Your task to perform on an android device: toggle data saver in the chrome app Image 0: 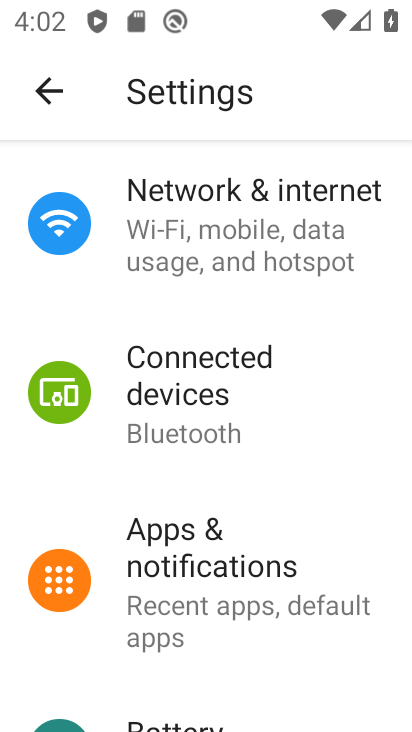
Step 0: press back button
Your task to perform on an android device: toggle data saver in the chrome app Image 1: 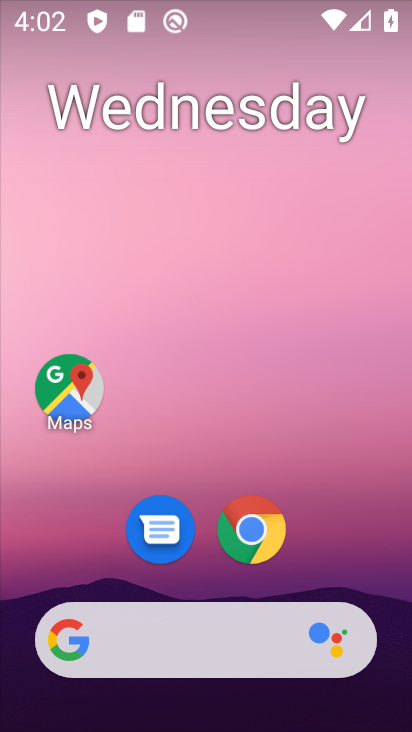
Step 1: click (250, 518)
Your task to perform on an android device: toggle data saver in the chrome app Image 2: 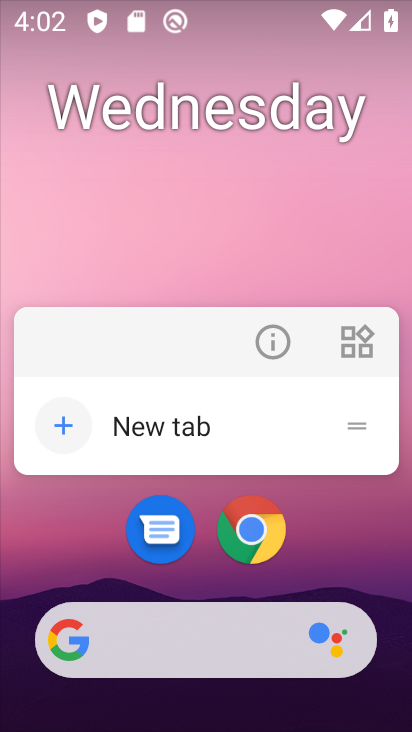
Step 2: click (249, 523)
Your task to perform on an android device: toggle data saver in the chrome app Image 3: 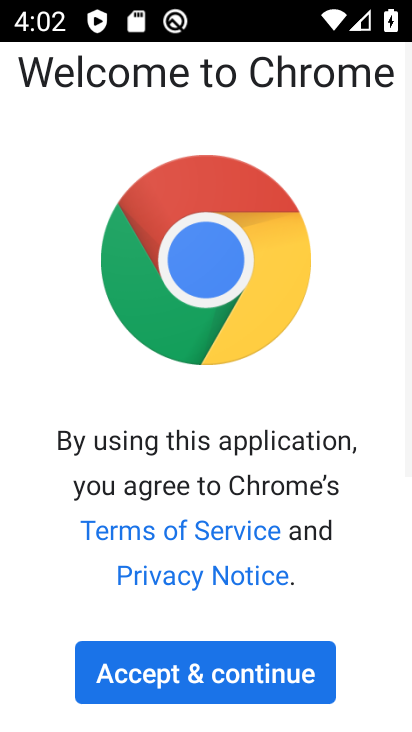
Step 3: click (172, 656)
Your task to perform on an android device: toggle data saver in the chrome app Image 4: 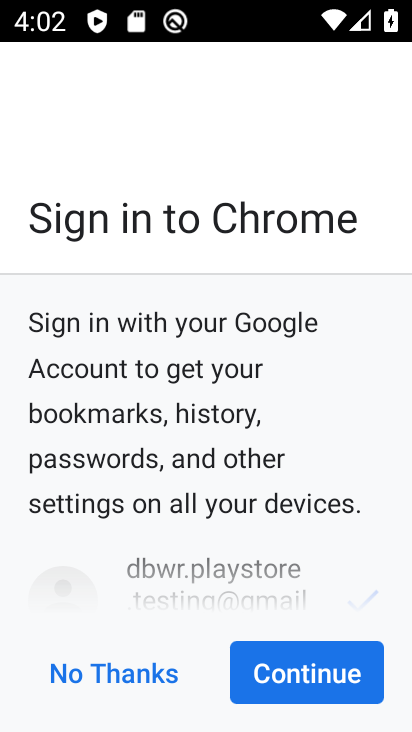
Step 4: click (312, 673)
Your task to perform on an android device: toggle data saver in the chrome app Image 5: 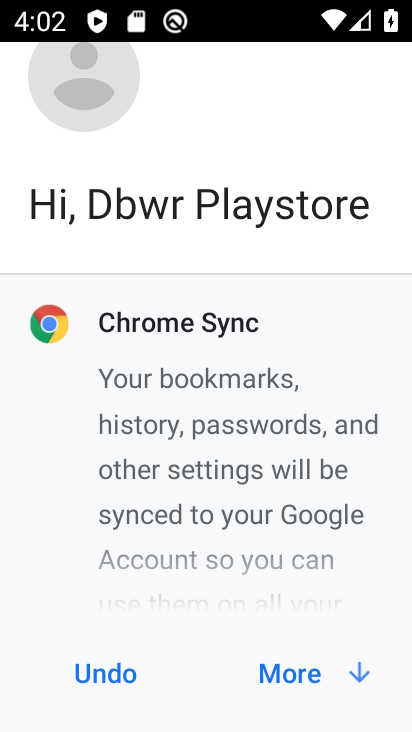
Step 5: click (295, 686)
Your task to perform on an android device: toggle data saver in the chrome app Image 6: 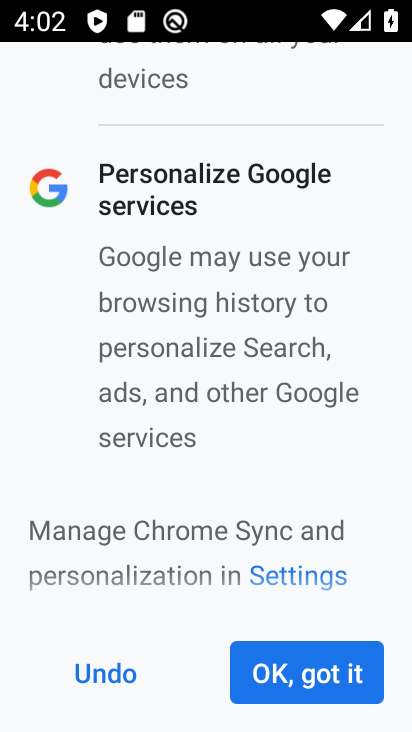
Step 6: click (301, 661)
Your task to perform on an android device: toggle data saver in the chrome app Image 7: 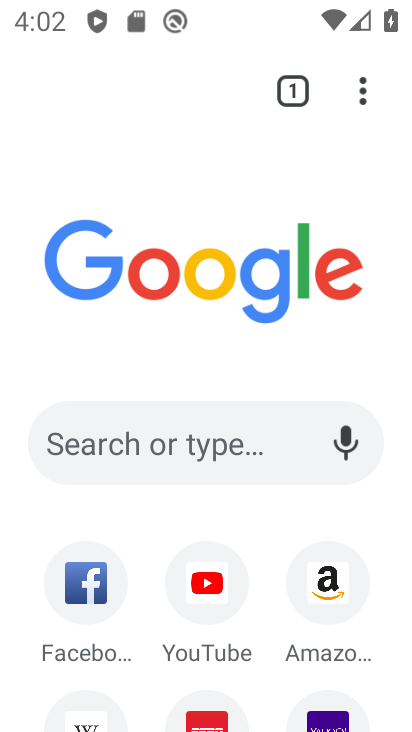
Step 7: drag from (366, 80) to (123, 561)
Your task to perform on an android device: toggle data saver in the chrome app Image 8: 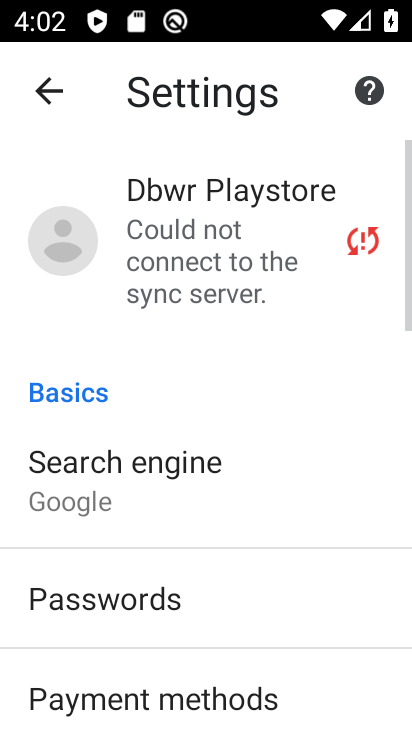
Step 8: drag from (171, 668) to (289, 148)
Your task to perform on an android device: toggle data saver in the chrome app Image 9: 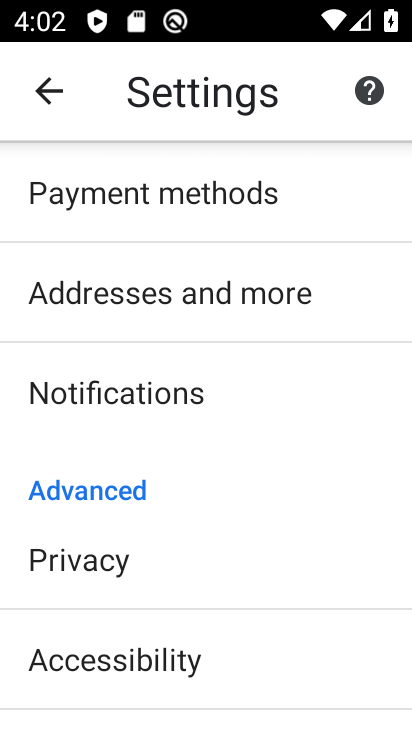
Step 9: drag from (143, 645) to (254, 241)
Your task to perform on an android device: toggle data saver in the chrome app Image 10: 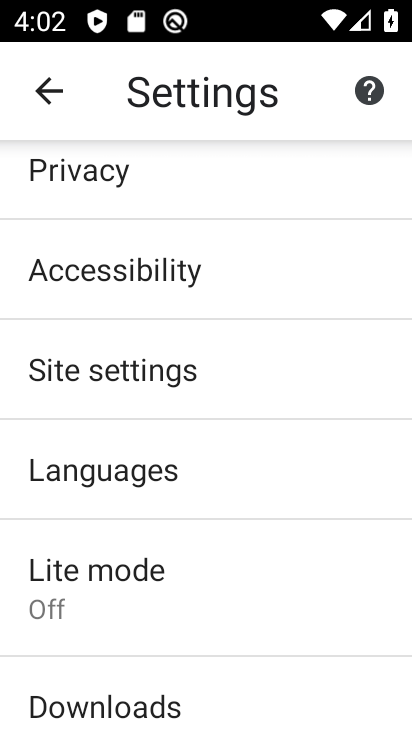
Step 10: click (143, 583)
Your task to perform on an android device: toggle data saver in the chrome app Image 11: 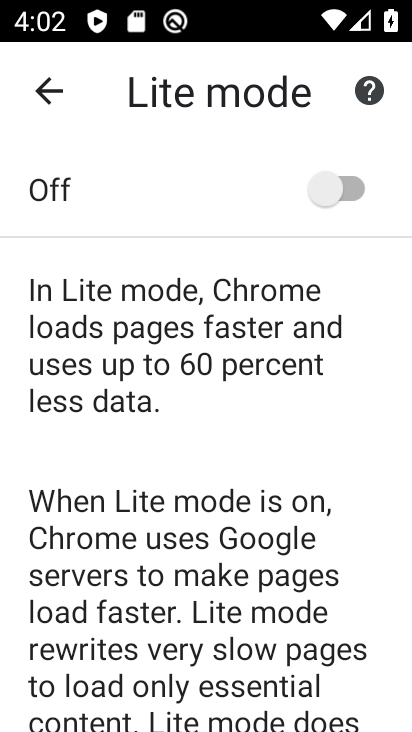
Step 11: click (315, 210)
Your task to perform on an android device: toggle data saver in the chrome app Image 12: 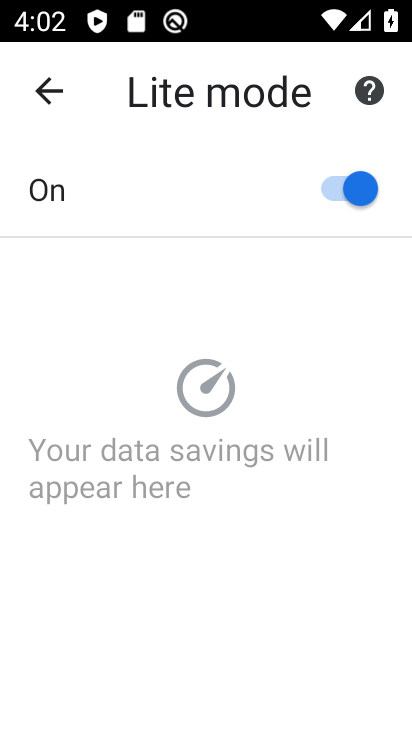
Step 12: task complete